Your task to perform on an android device: show emergency info Image 0: 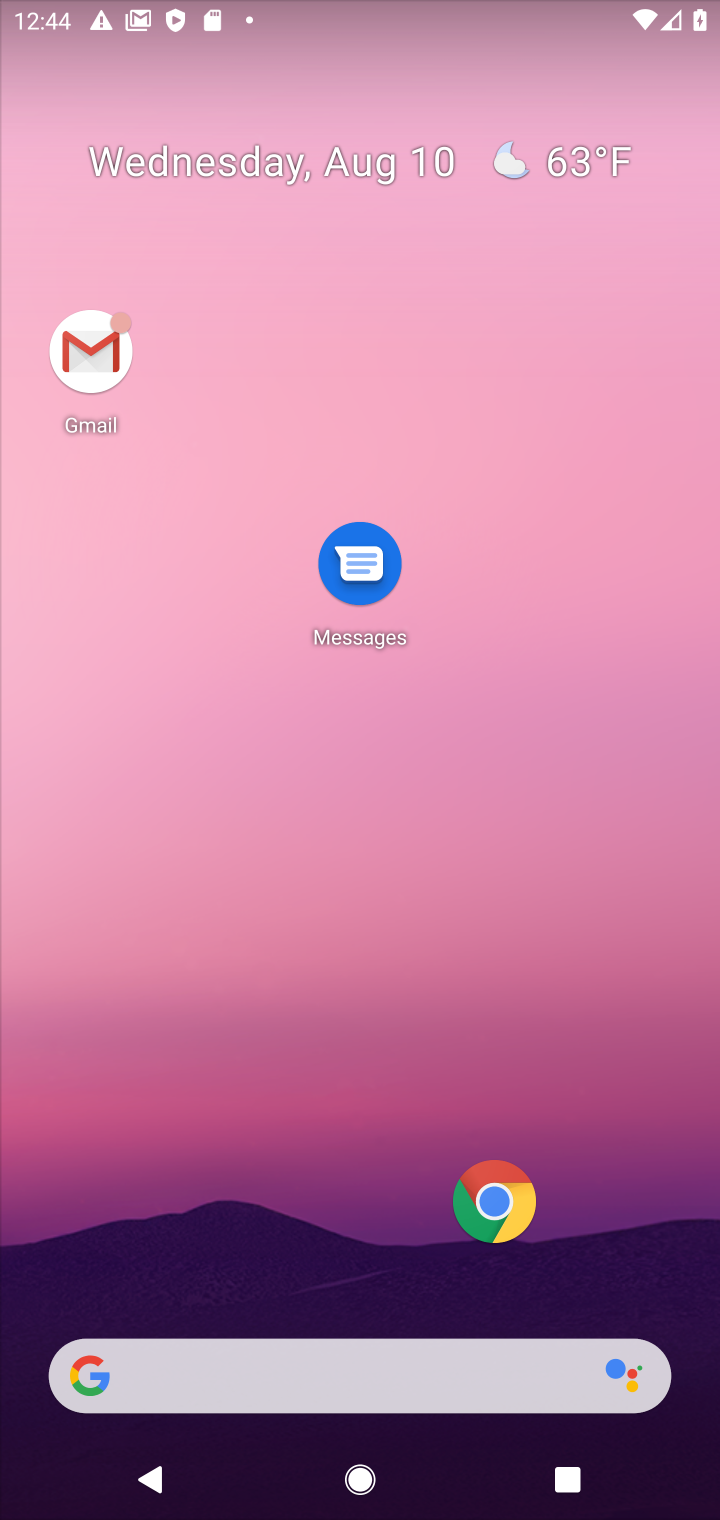
Step 0: drag from (213, 980) to (233, 33)
Your task to perform on an android device: show emergency info Image 1: 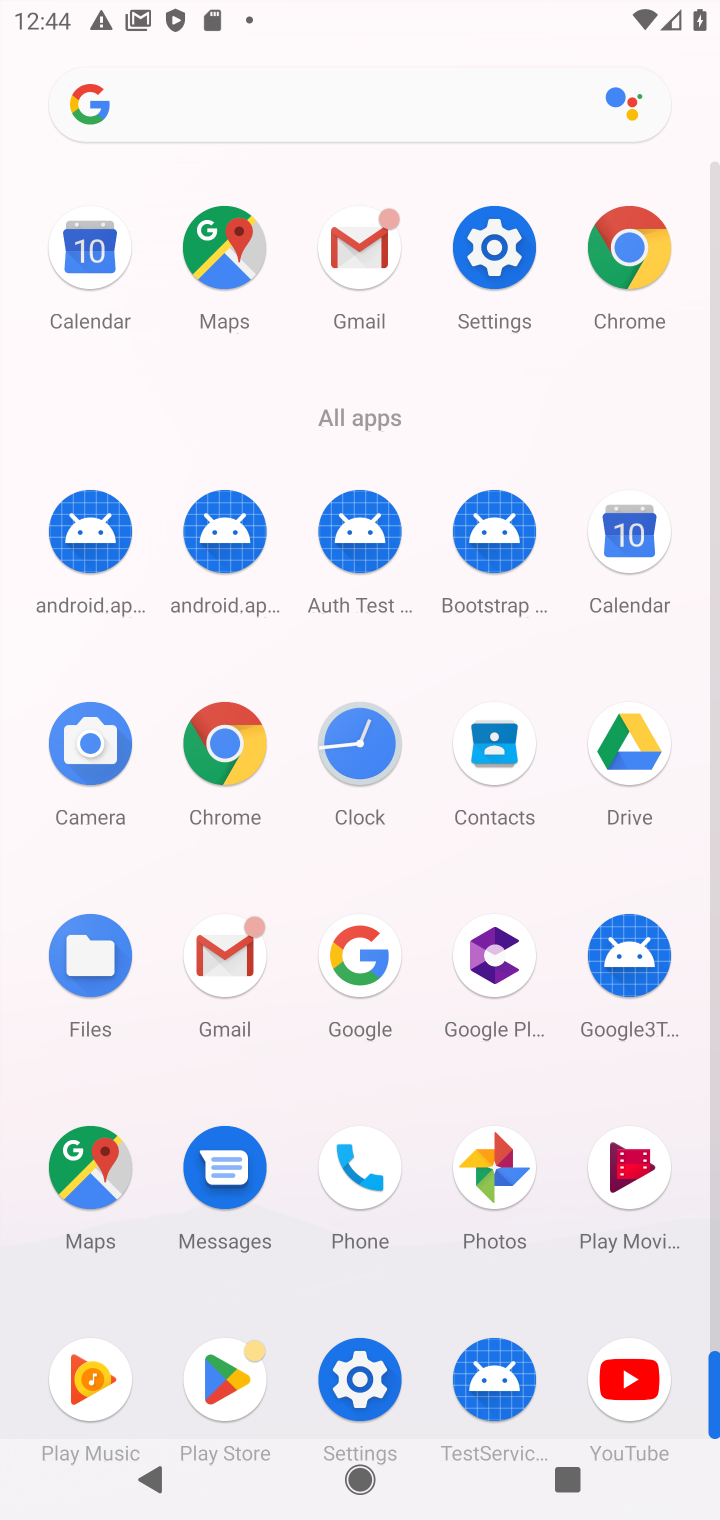
Step 1: click (491, 255)
Your task to perform on an android device: show emergency info Image 2: 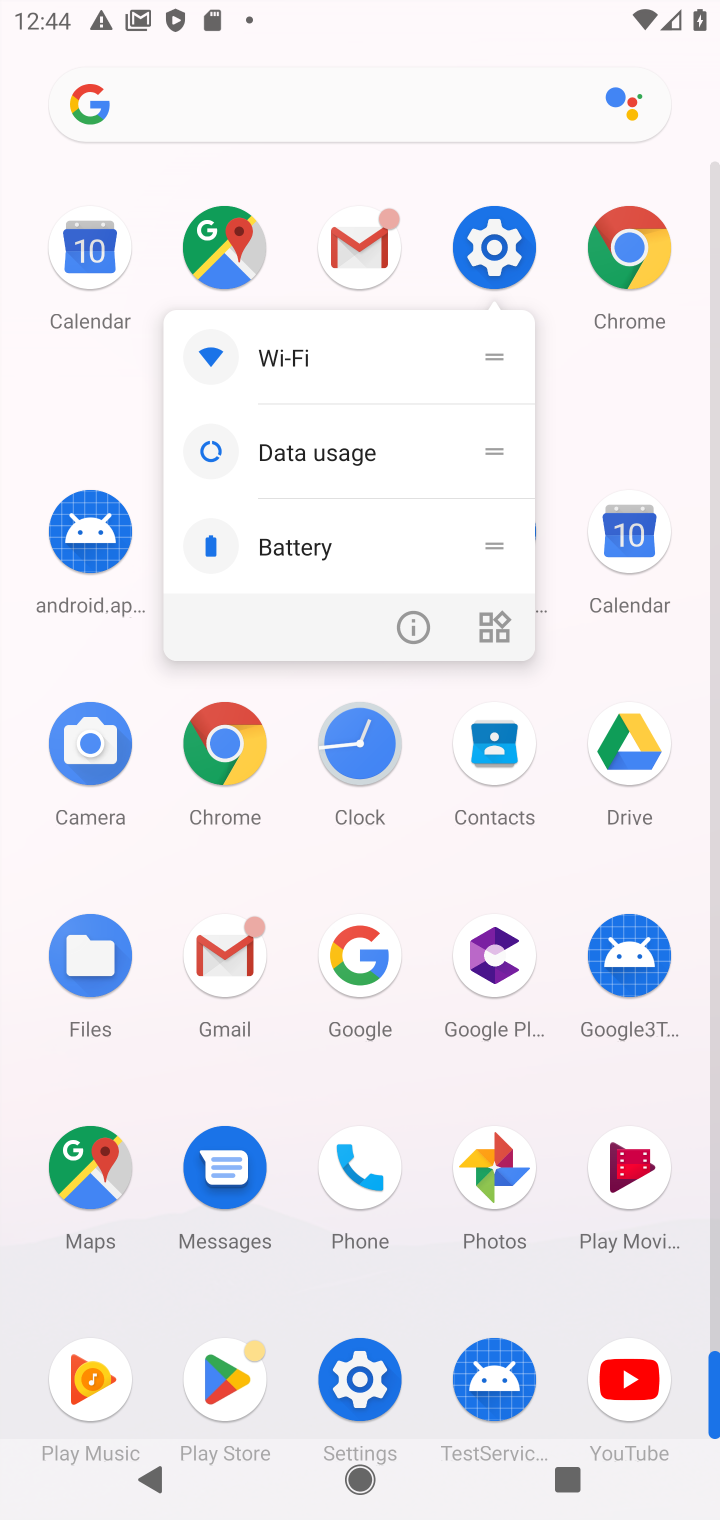
Step 2: click (510, 225)
Your task to perform on an android device: show emergency info Image 3: 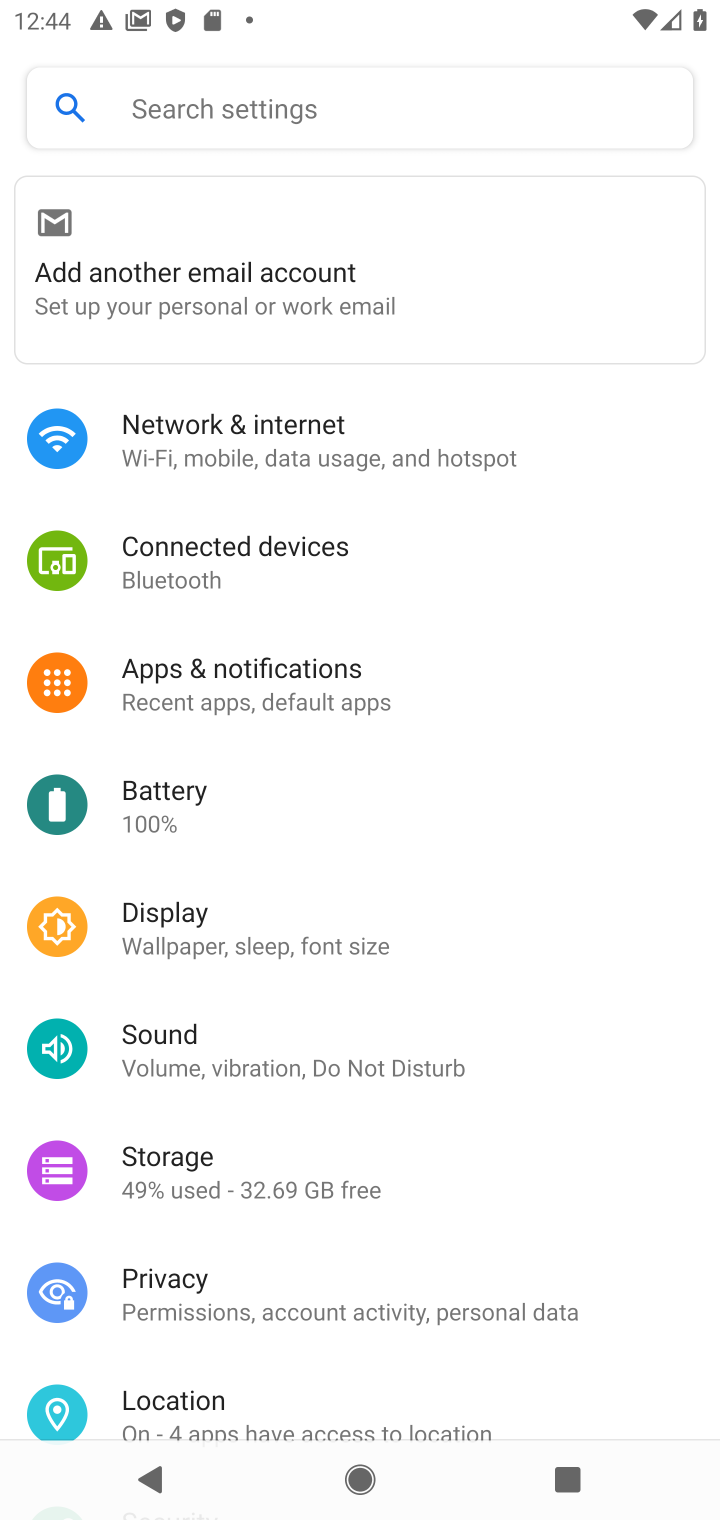
Step 3: drag from (349, 1041) to (410, 343)
Your task to perform on an android device: show emergency info Image 4: 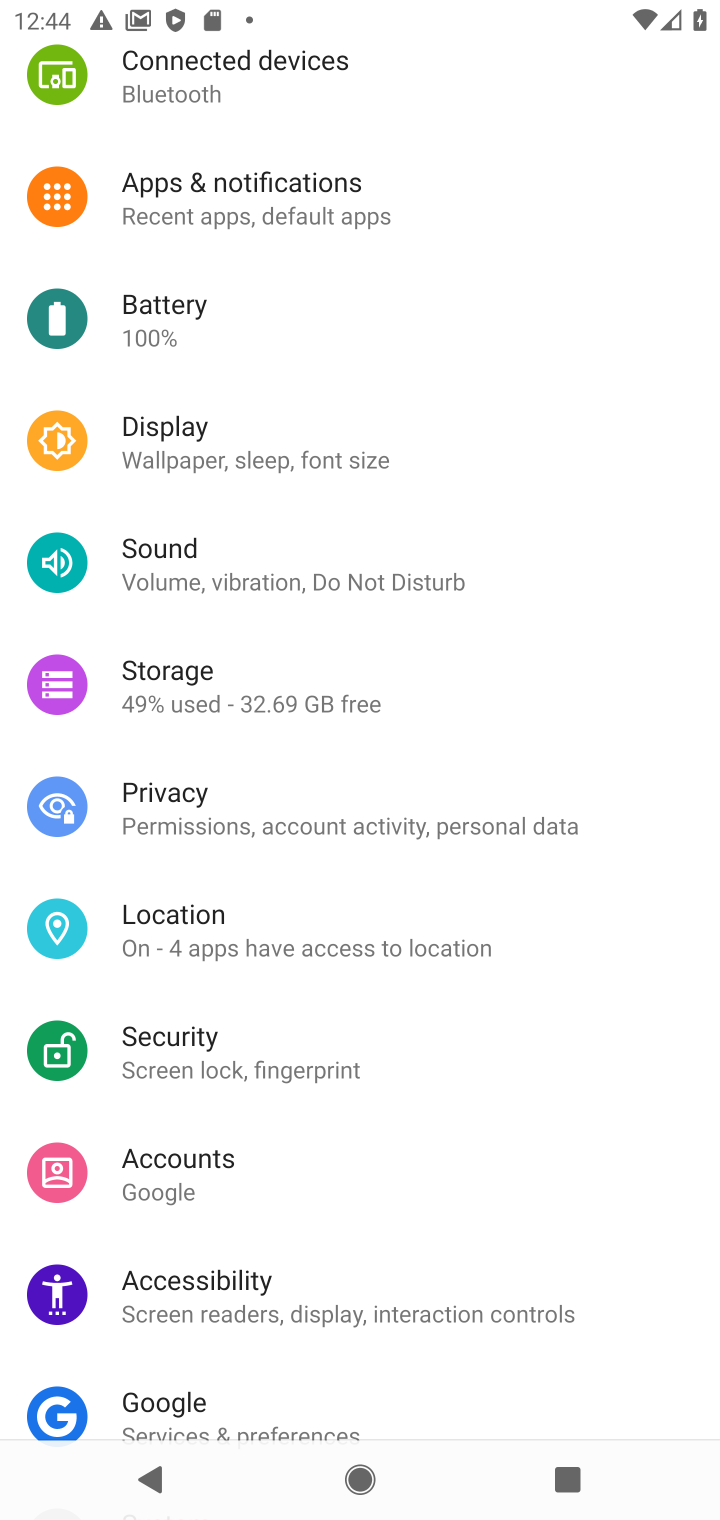
Step 4: drag from (479, 1101) to (526, 293)
Your task to perform on an android device: show emergency info Image 5: 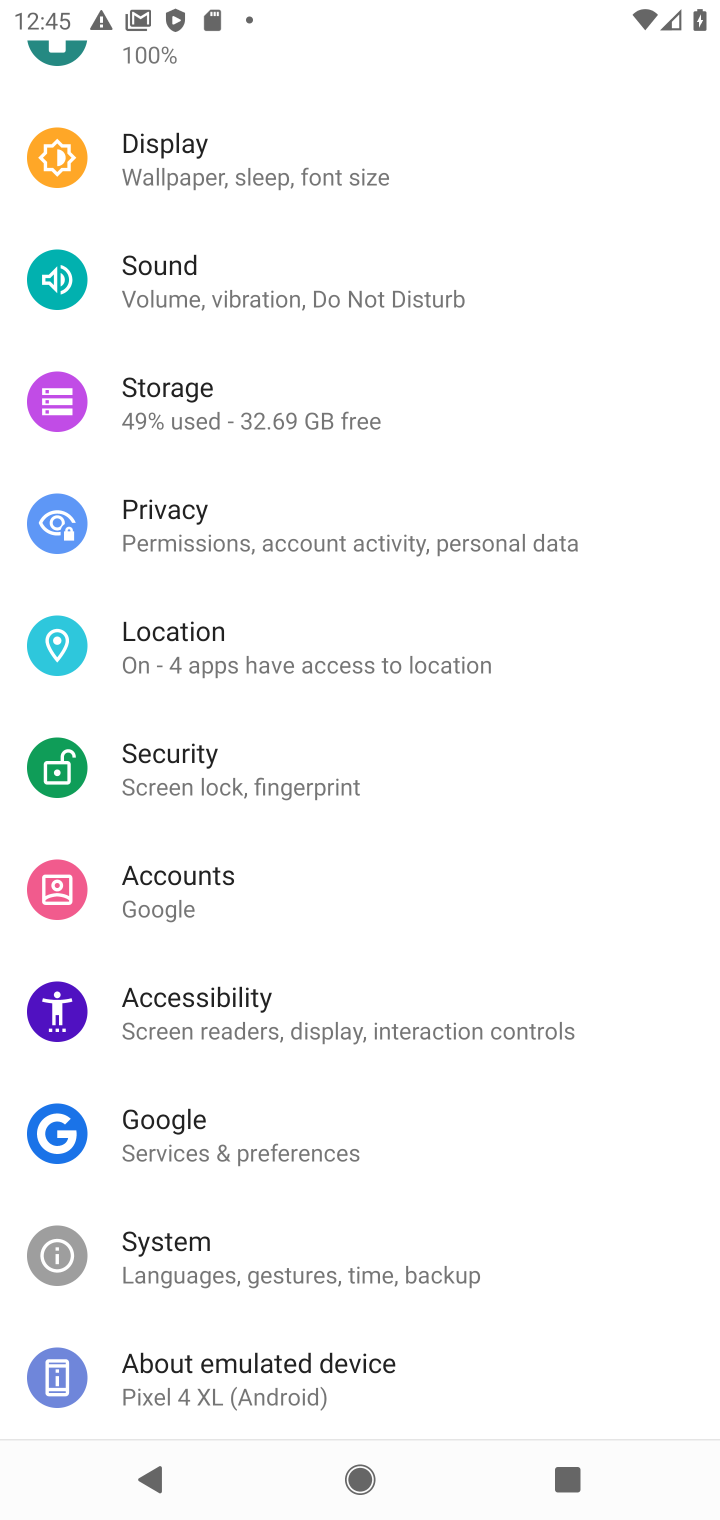
Step 5: drag from (349, 1326) to (401, 602)
Your task to perform on an android device: show emergency info Image 6: 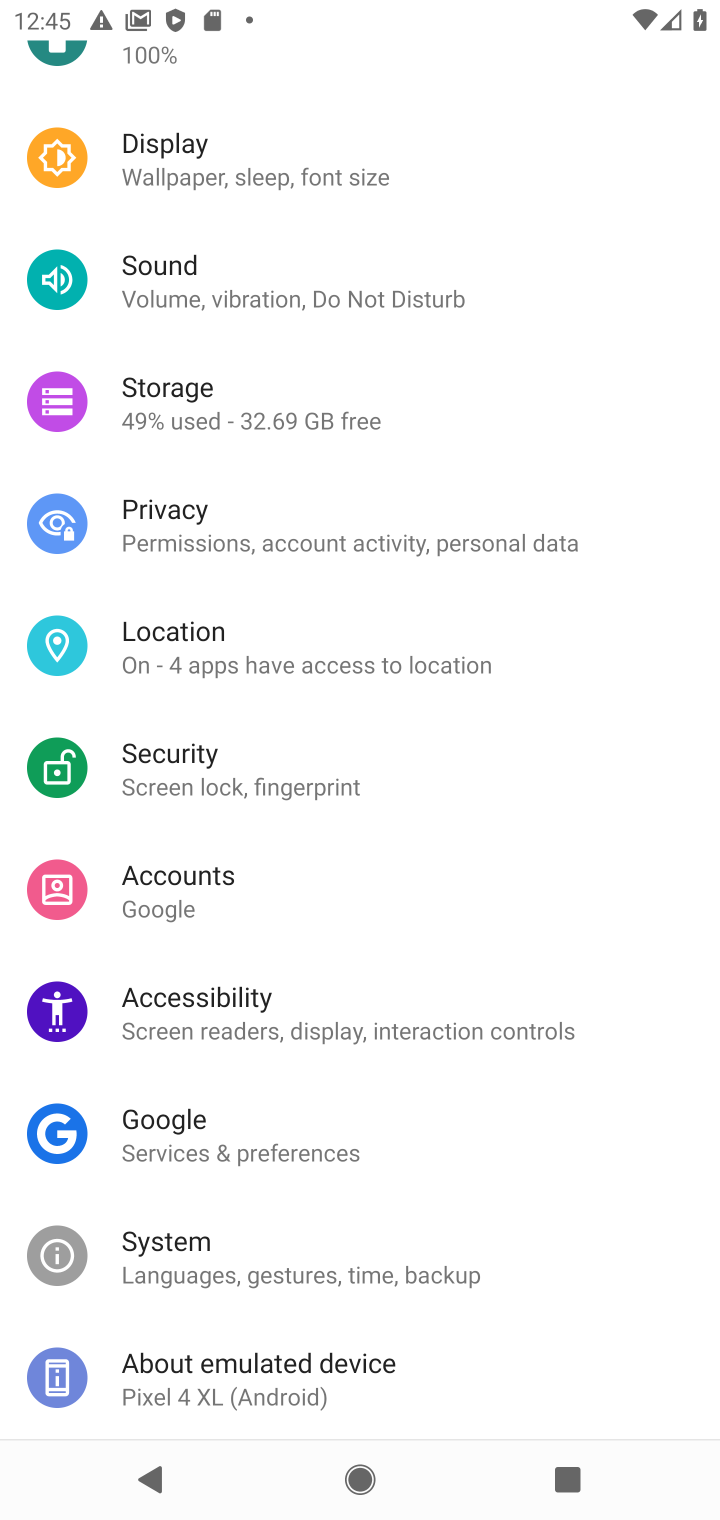
Step 6: click (349, 1353)
Your task to perform on an android device: show emergency info Image 7: 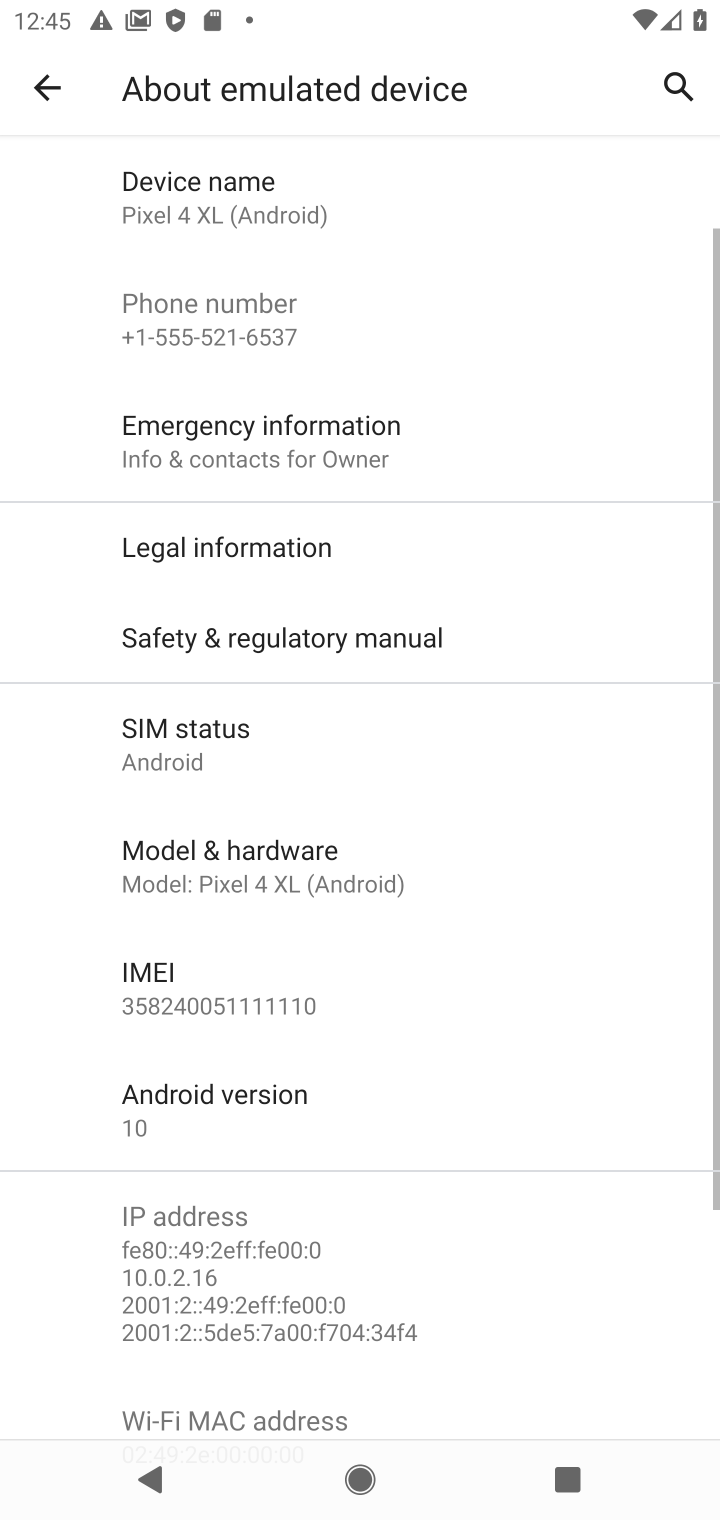
Step 7: click (469, 447)
Your task to perform on an android device: show emergency info Image 8: 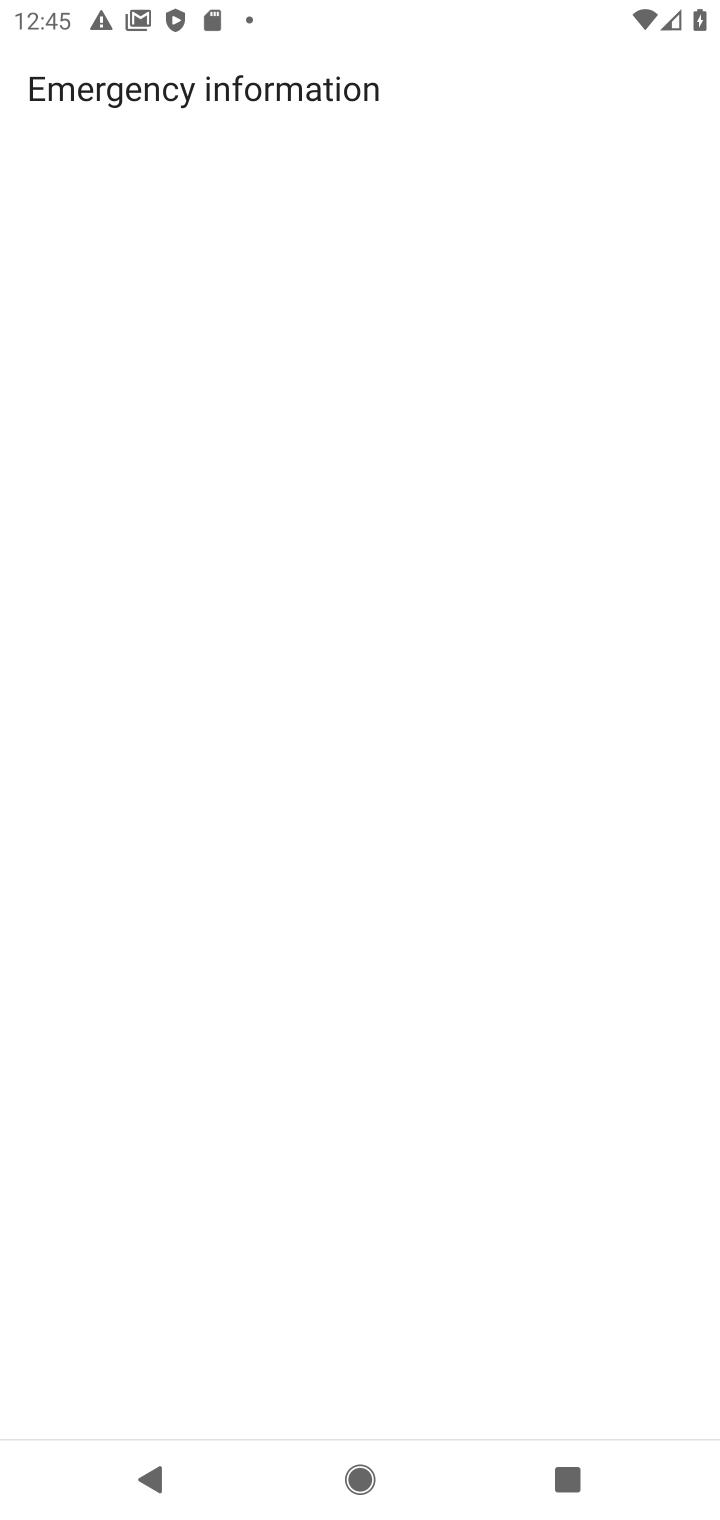
Step 8: task complete